Your task to perform on an android device: See recent photos Image 0: 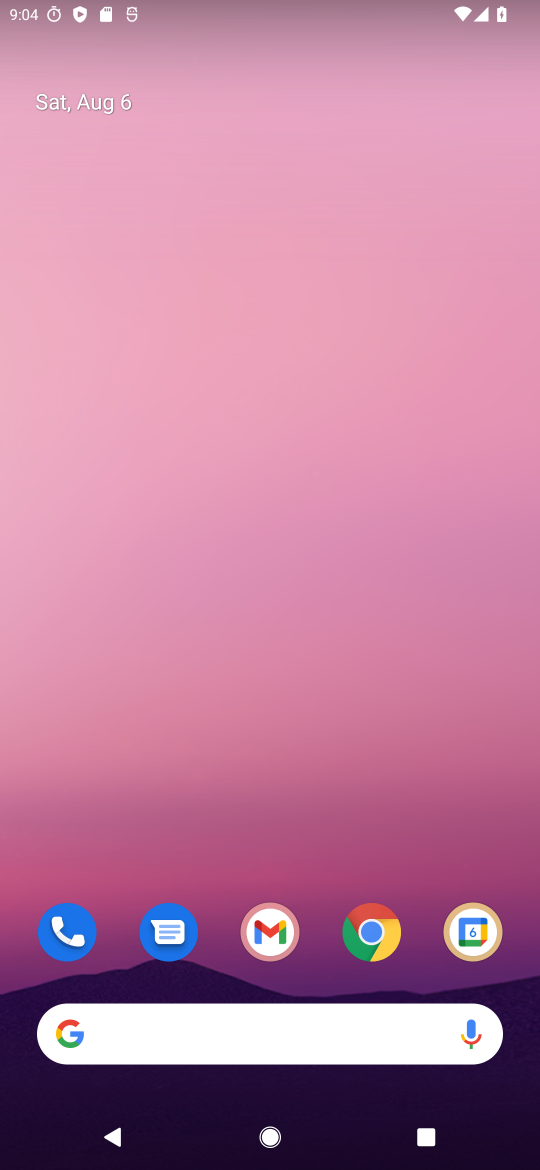
Step 0: drag from (345, 1042) to (533, 171)
Your task to perform on an android device: See recent photos Image 1: 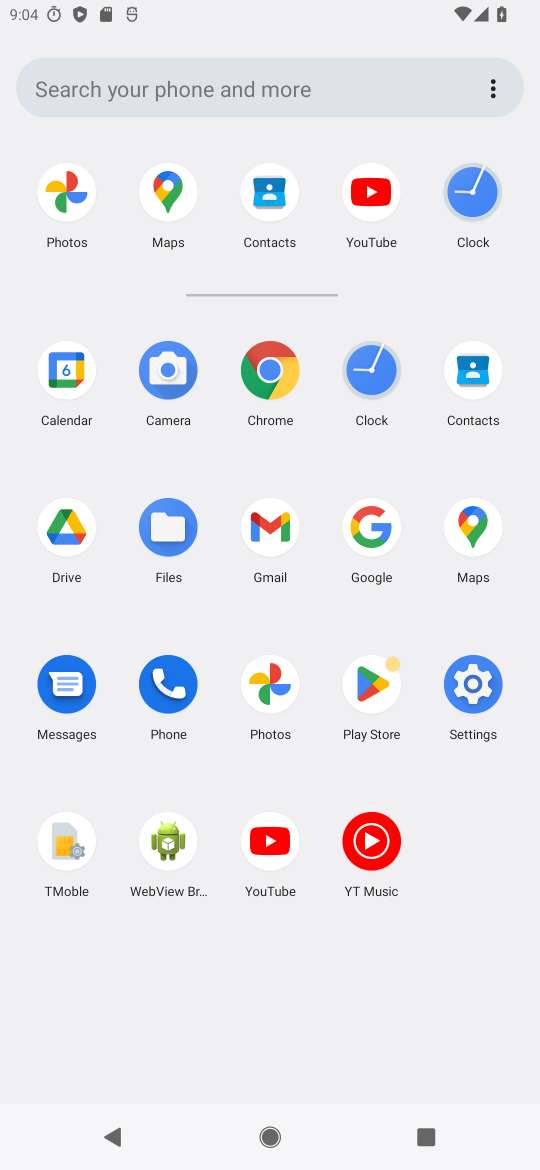
Step 1: click (259, 685)
Your task to perform on an android device: See recent photos Image 2: 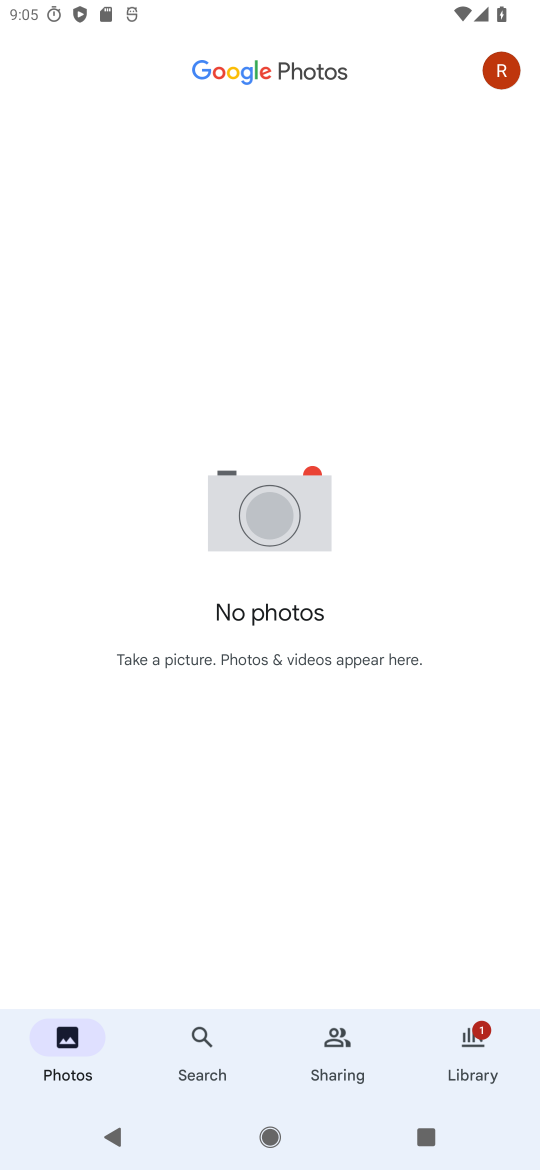
Step 2: click (206, 1067)
Your task to perform on an android device: See recent photos Image 3: 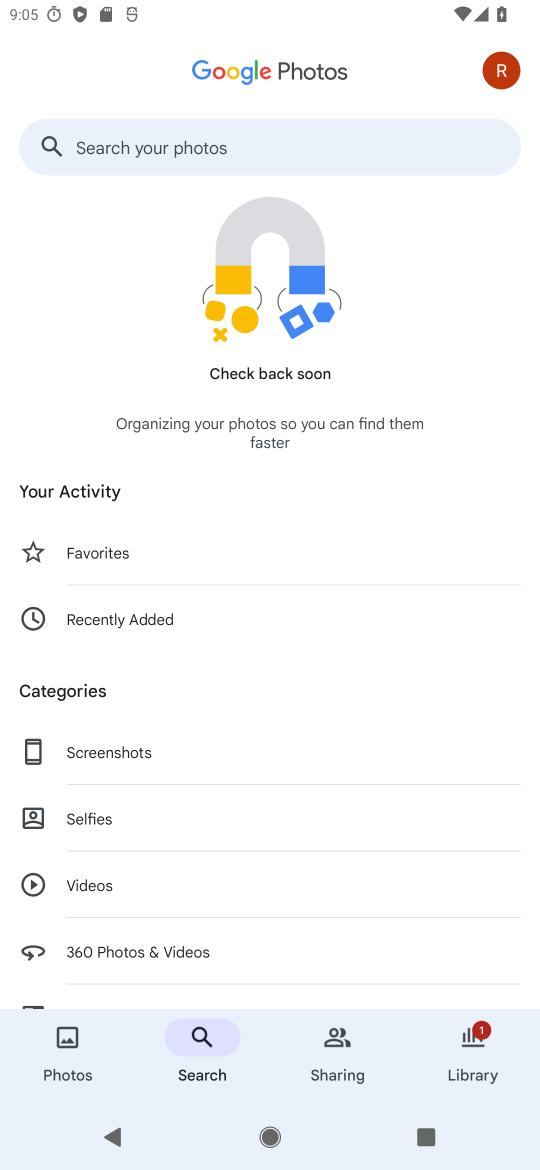
Step 3: click (139, 613)
Your task to perform on an android device: See recent photos Image 4: 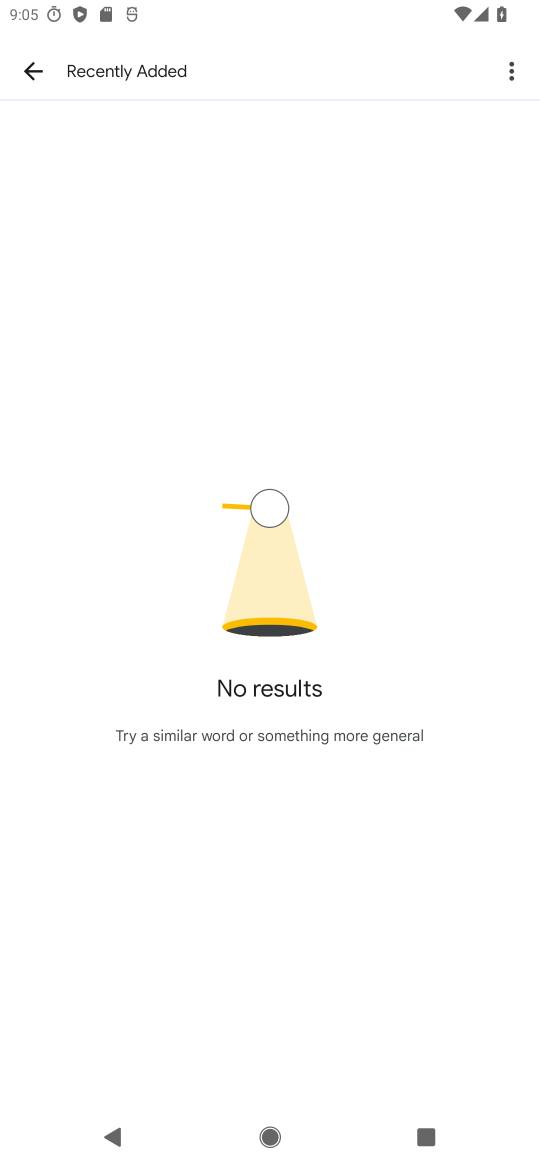
Step 4: task complete